Your task to perform on an android device: Open internet settings Image 0: 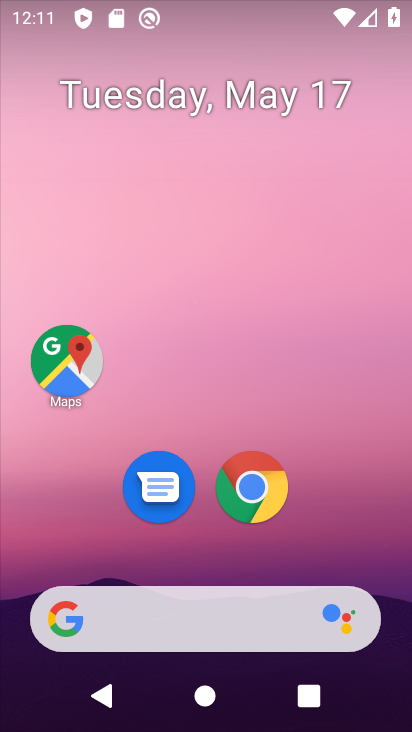
Step 0: drag from (339, 511) to (228, 28)
Your task to perform on an android device: Open internet settings Image 1: 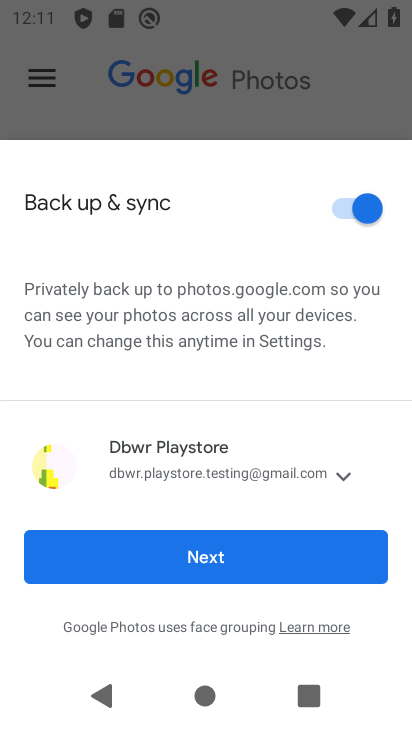
Step 1: press back button
Your task to perform on an android device: Open internet settings Image 2: 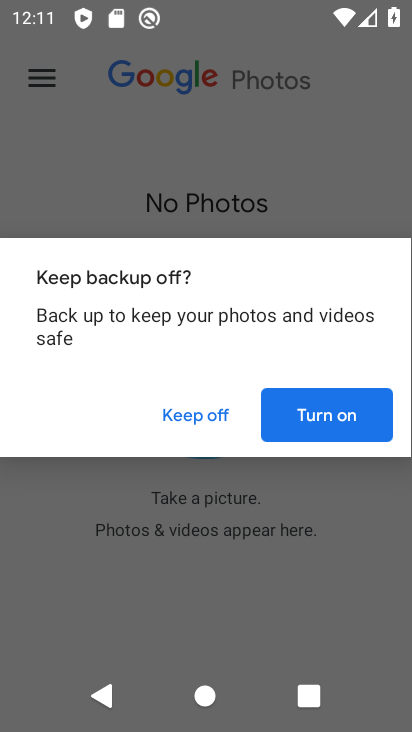
Step 2: press home button
Your task to perform on an android device: Open internet settings Image 3: 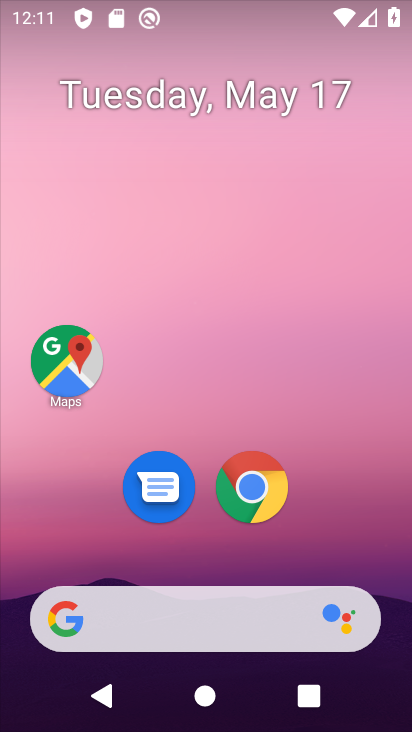
Step 3: drag from (333, 523) to (254, 21)
Your task to perform on an android device: Open internet settings Image 4: 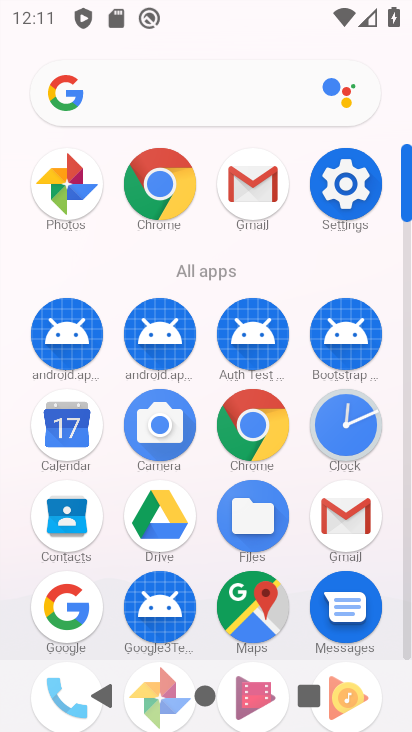
Step 4: click (353, 175)
Your task to perform on an android device: Open internet settings Image 5: 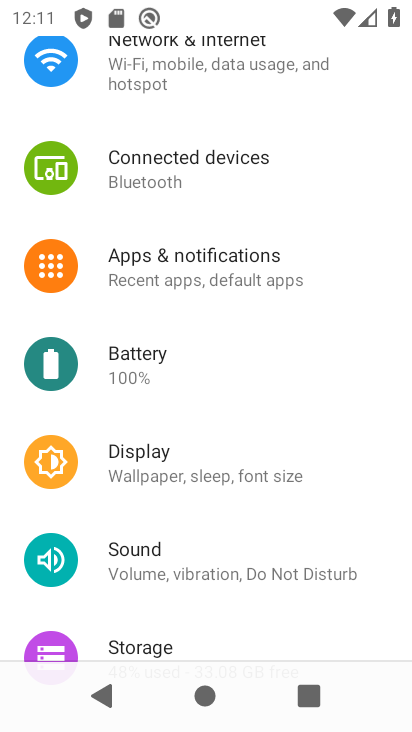
Step 5: drag from (301, 127) to (228, 566)
Your task to perform on an android device: Open internet settings Image 6: 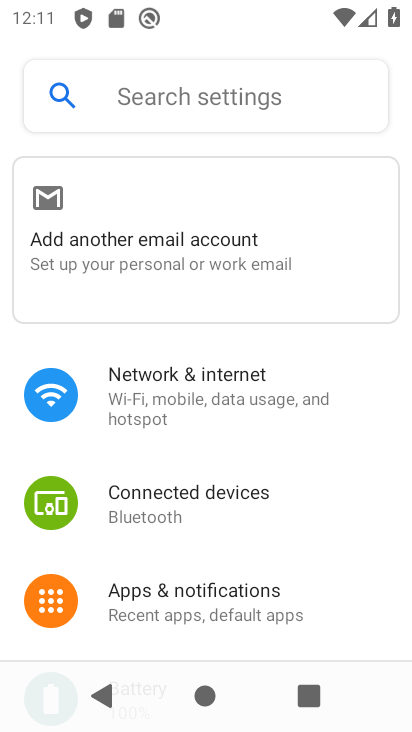
Step 6: click (184, 396)
Your task to perform on an android device: Open internet settings Image 7: 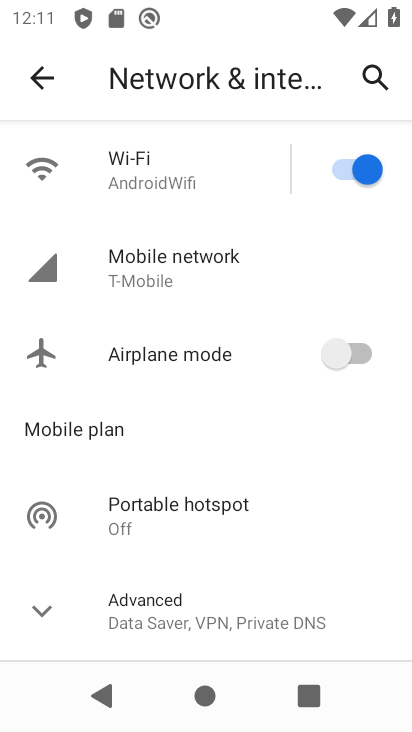
Step 7: click (146, 166)
Your task to perform on an android device: Open internet settings Image 8: 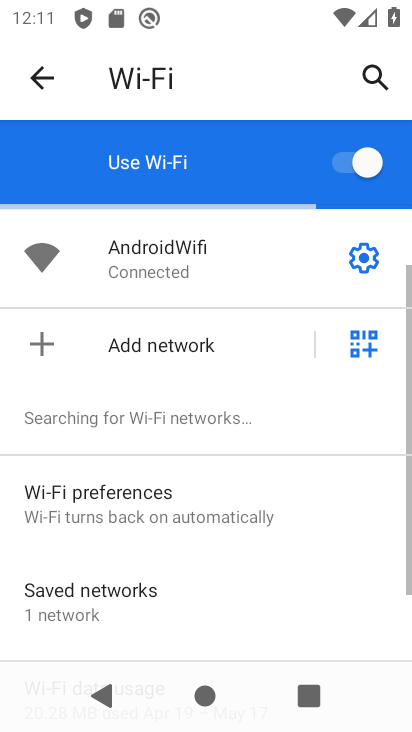
Step 8: click (46, 66)
Your task to perform on an android device: Open internet settings Image 9: 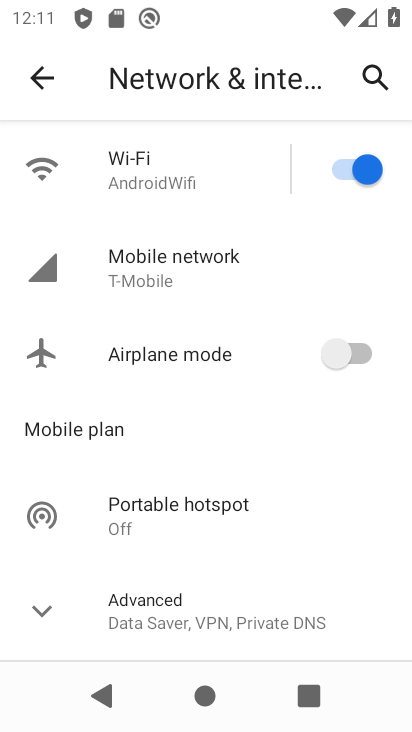
Step 9: click (45, 600)
Your task to perform on an android device: Open internet settings Image 10: 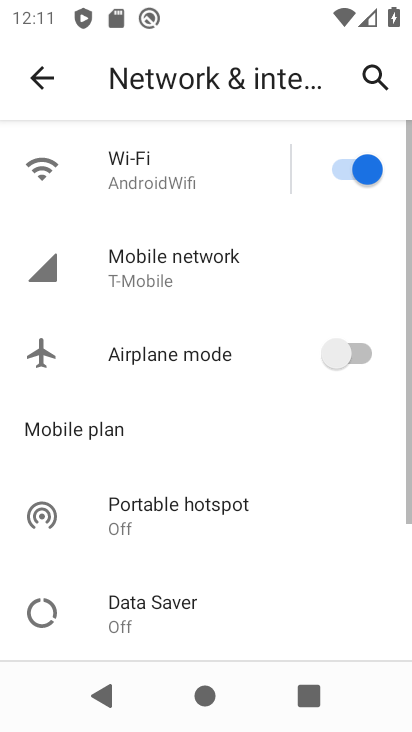
Step 10: task complete